Your task to perform on an android device: Open Google Chrome Image 0: 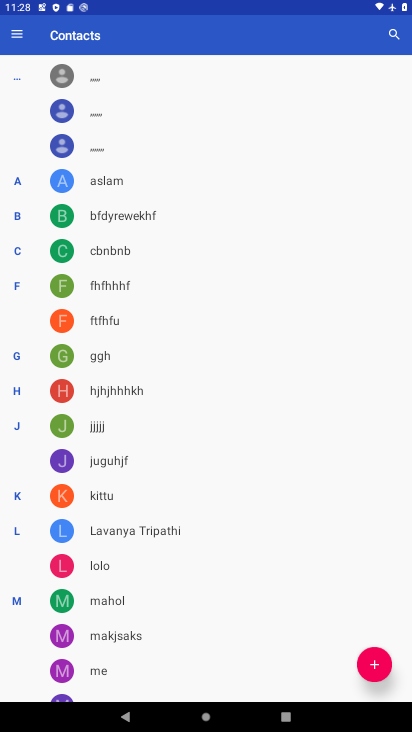
Step 0: press home button
Your task to perform on an android device: Open Google Chrome Image 1: 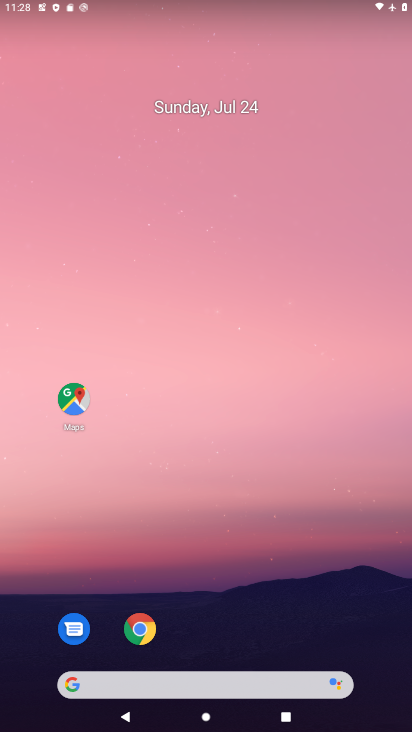
Step 1: click (134, 630)
Your task to perform on an android device: Open Google Chrome Image 2: 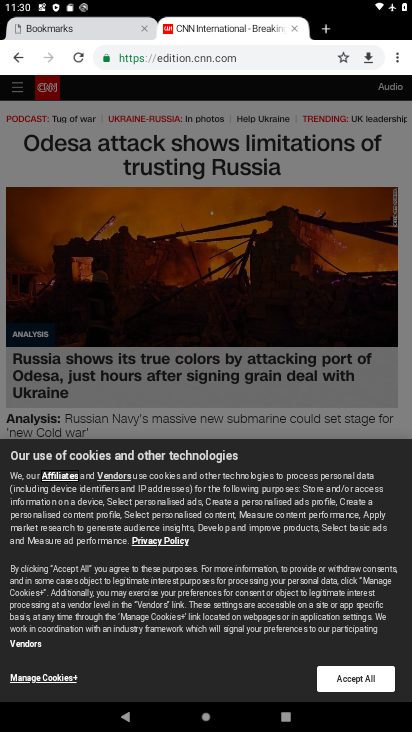
Step 2: task complete